Your task to perform on an android device: turn off javascript in the chrome app Image 0: 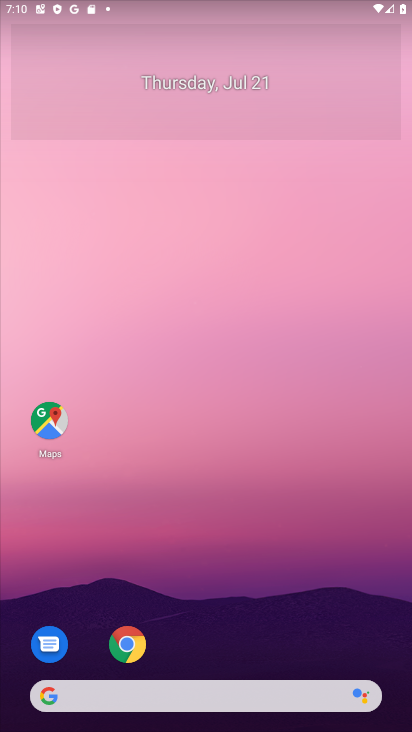
Step 0: click (129, 645)
Your task to perform on an android device: turn off javascript in the chrome app Image 1: 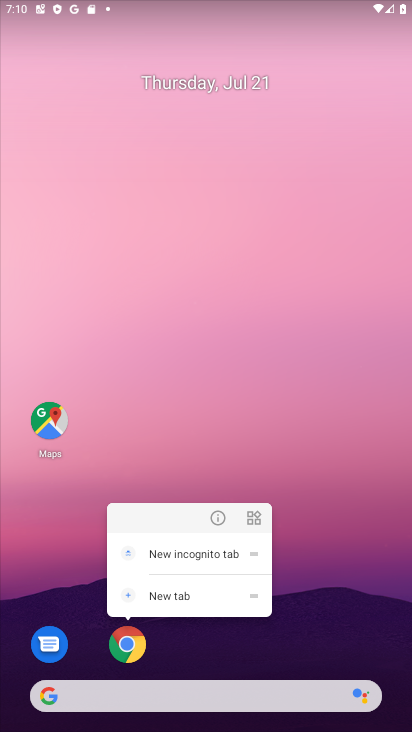
Step 1: click (127, 645)
Your task to perform on an android device: turn off javascript in the chrome app Image 2: 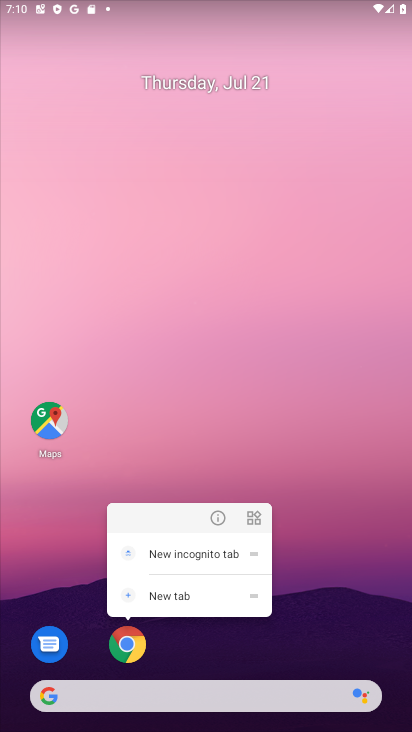
Step 2: click (127, 645)
Your task to perform on an android device: turn off javascript in the chrome app Image 3: 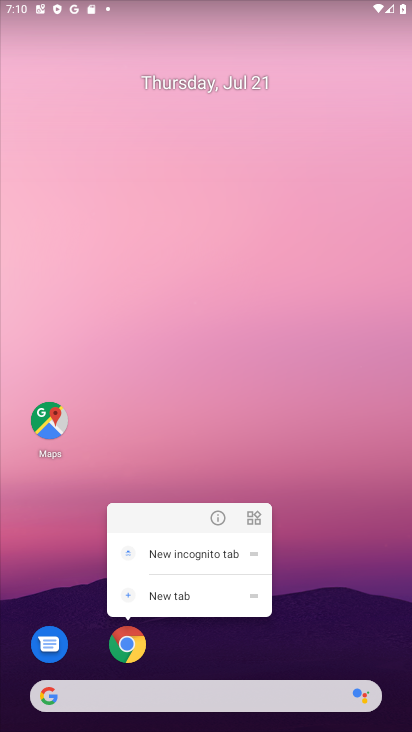
Step 3: click (123, 644)
Your task to perform on an android device: turn off javascript in the chrome app Image 4: 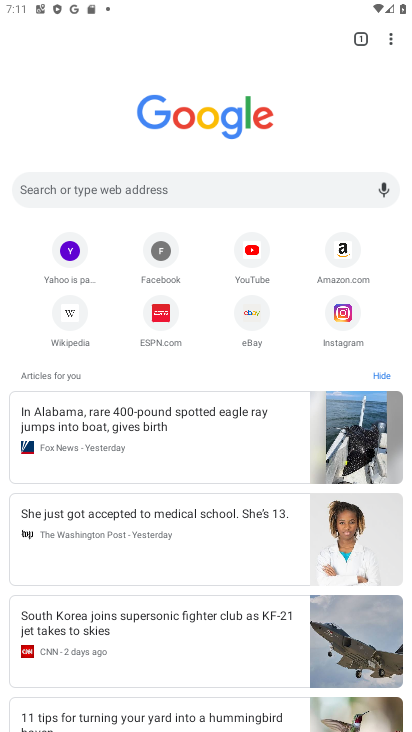
Step 4: click (389, 38)
Your task to perform on an android device: turn off javascript in the chrome app Image 5: 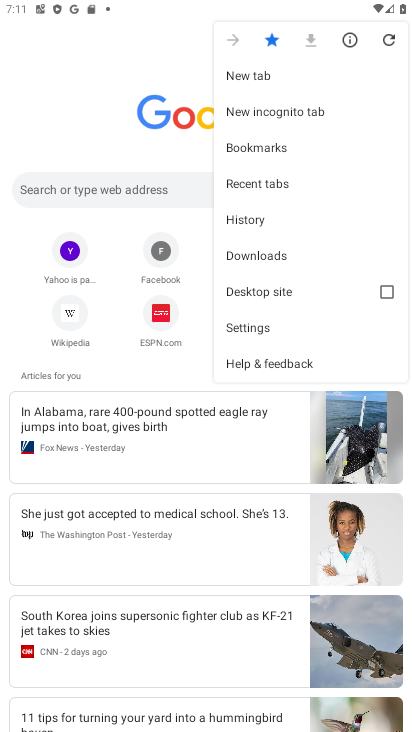
Step 5: task complete